Your task to perform on an android device: Open location settings Image 0: 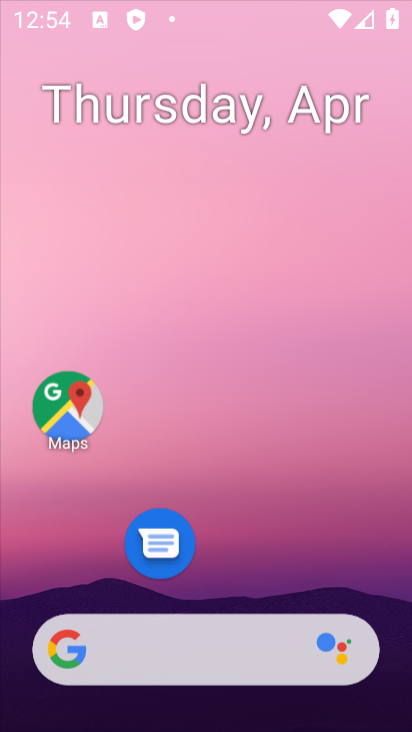
Step 0: drag from (257, 246) to (291, 70)
Your task to perform on an android device: Open location settings Image 1: 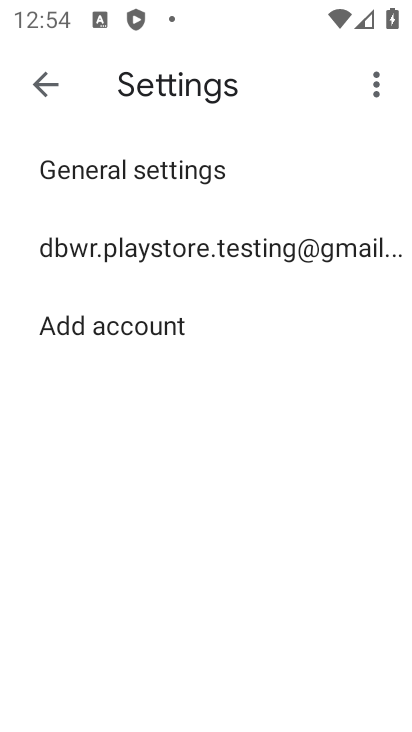
Step 1: press home button
Your task to perform on an android device: Open location settings Image 2: 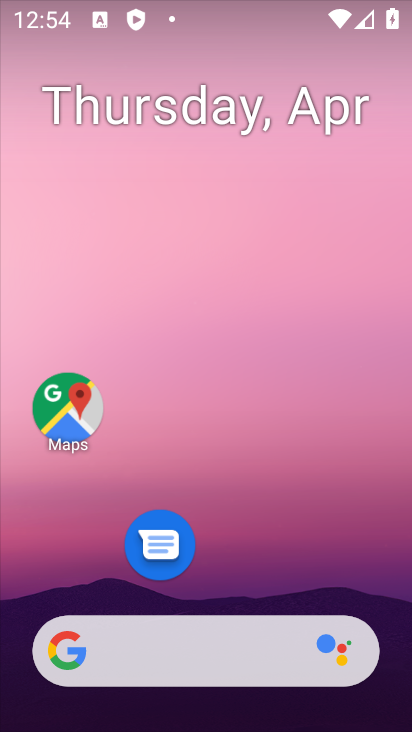
Step 2: drag from (264, 648) to (324, 129)
Your task to perform on an android device: Open location settings Image 3: 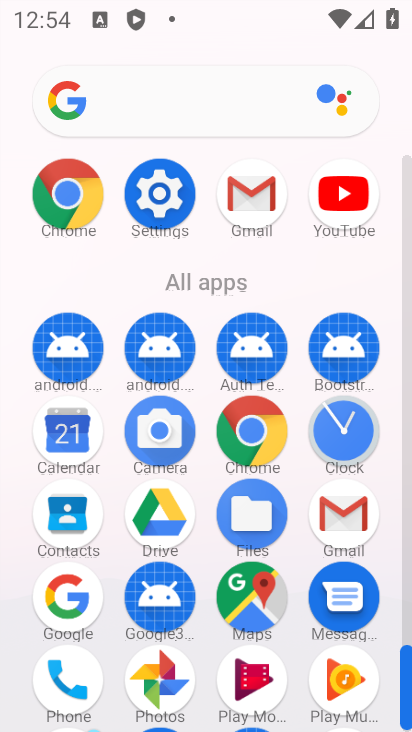
Step 3: click (182, 204)
Your task to perform on an android device: Open location settings Image 4: 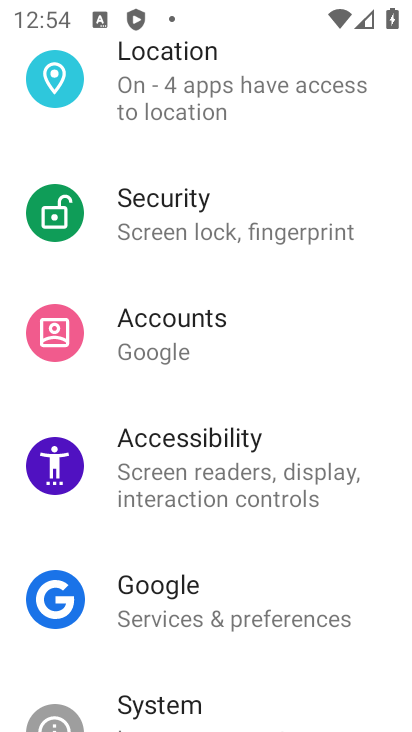
Step 4: drag from (223, 210) to (213, 585)
Your task to perform on an android device: Open location settings Image 5: 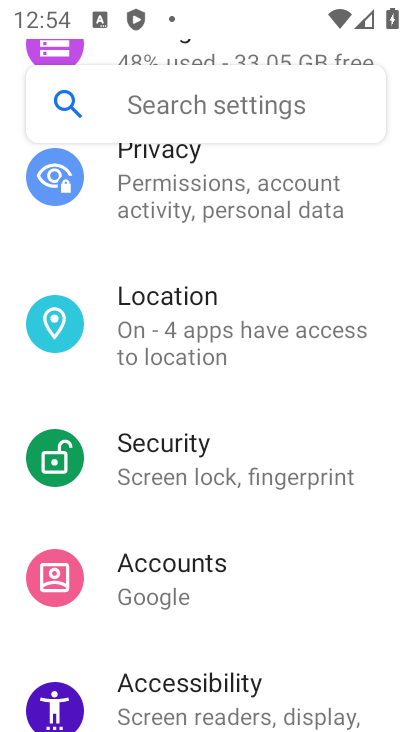
Step 5: click (248, 343)
Your task to perform on an android device: Open location settings Image 6: 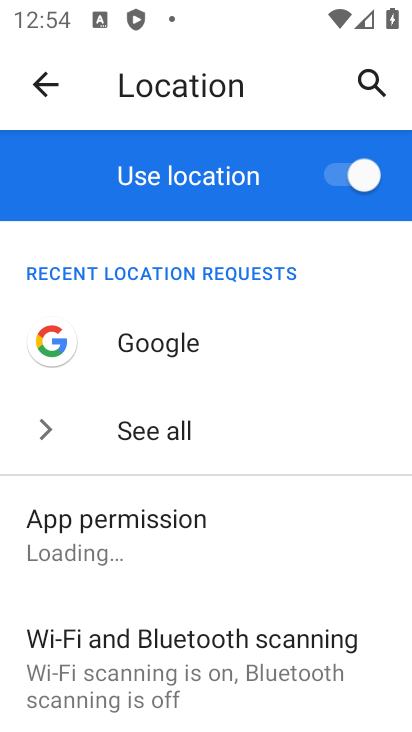
Step 6: drag from (261, 618) to (267, 333)
Your task to perform on an android device: Open location settings Image 7: 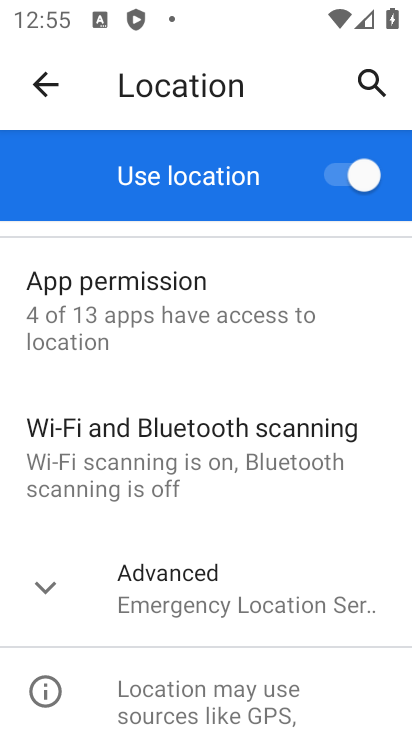
Step 7: click (239, 592)
Your task to perform on an android device: Open location settings Image 8: 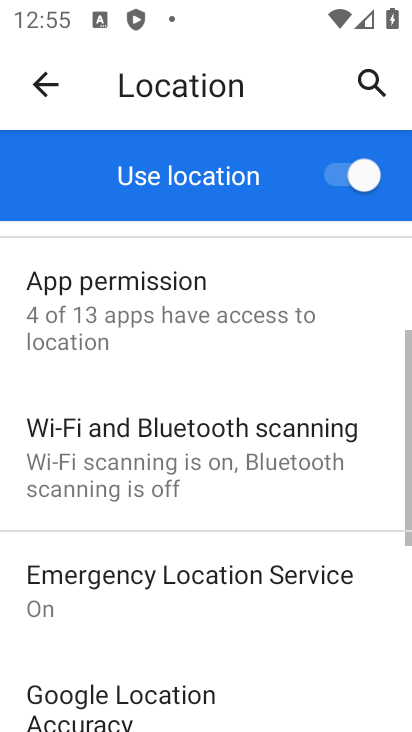
Step 8: task complete